Your task to perform on an android device: turn off translation in the chrome app Image 0: 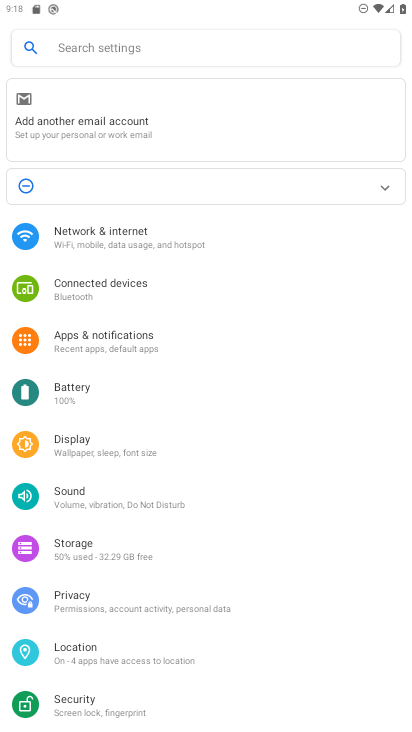
Step 0: press home button
Your task to perform on an android device: turn off translation in the chrome app Image 1: 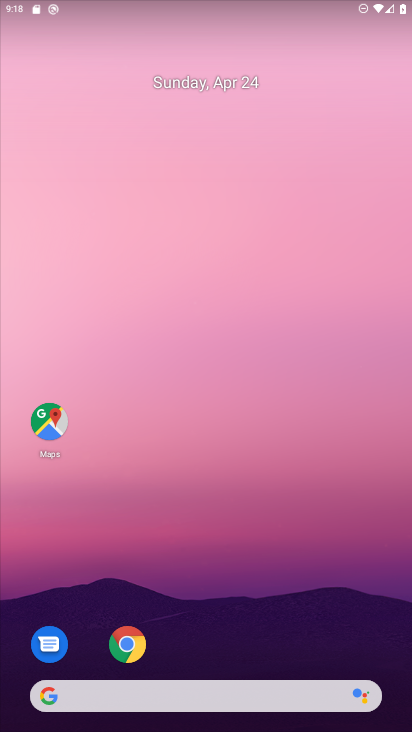
Step 1: click (125, 636)
Your task to perform on an android device: turn off translation in the chrome app Image 2: 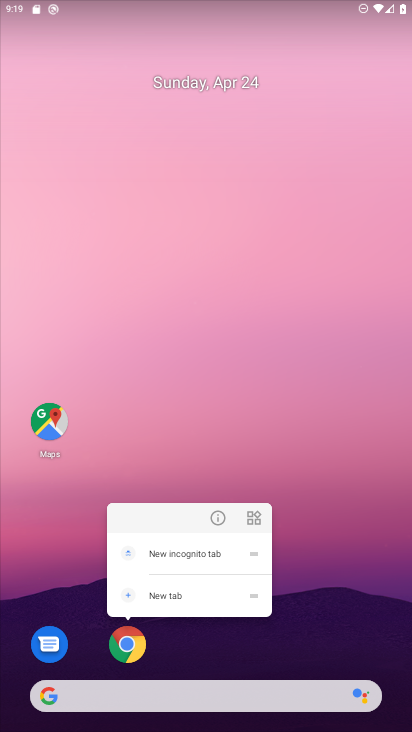
Step 2: click (139, 638)
Your task to perform on an android device: turn off translation in the chrome app Image 3: 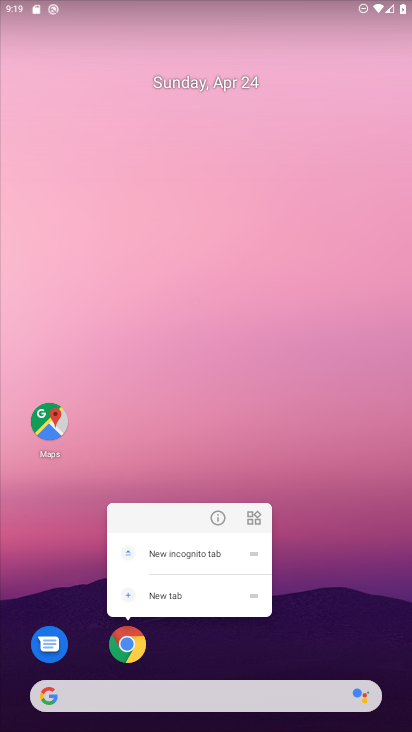
Step 3: click (132, 643)
Your task to perform on an android device: turn off translation in the chrome app Image 4: 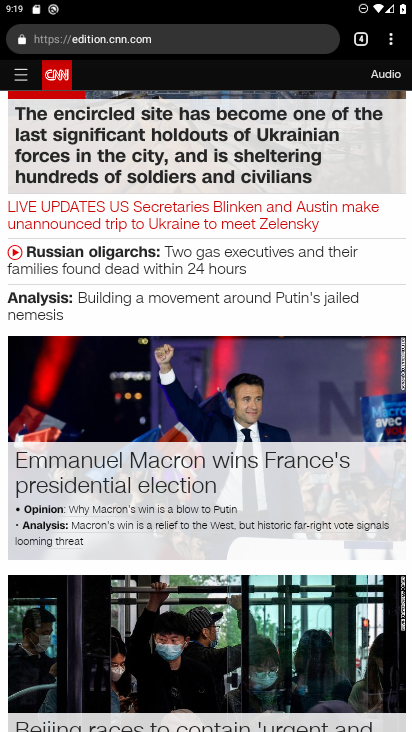
Step 4: drag from (386, 41) to (251, 468)
Your task to perform on an android device: turn off translation in the chrome app Image 5: 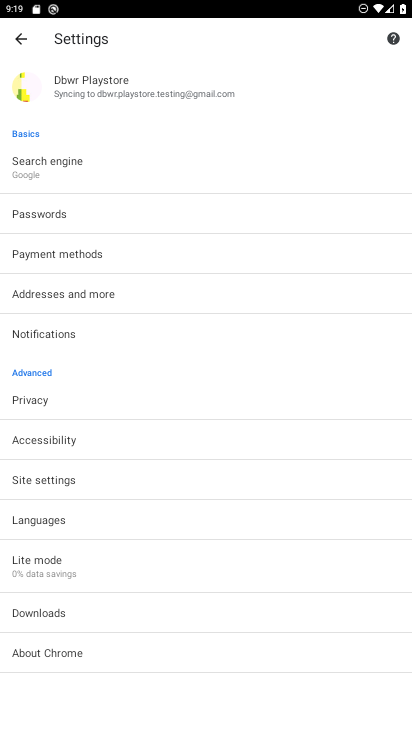
Step 5: click (73, 516)
Your task to perform on an android device: turn off translation in the chrome app Image 6: 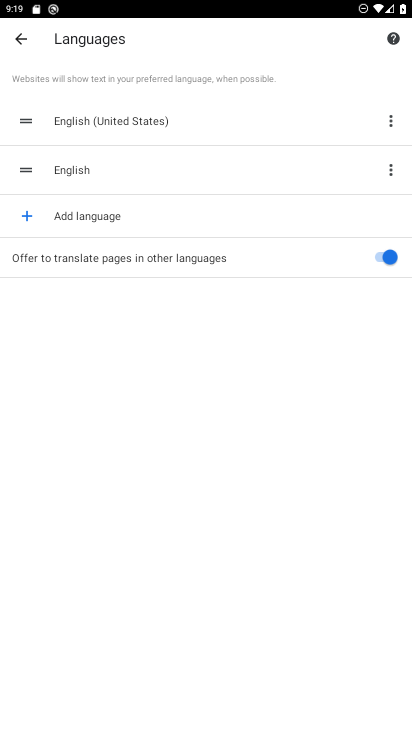
Step 6: click (391, 256)
Your task to perform on an android device: turn off translation in the chrome app Image 7: 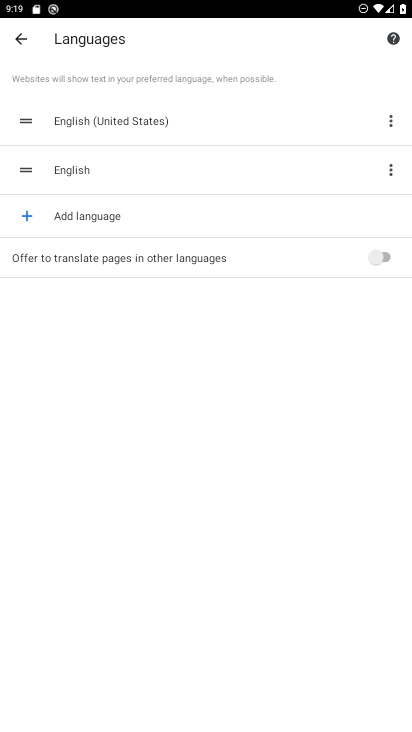
Step 7: task complete